Your task to perform on an android device: star an email in the gmail app Image 0: 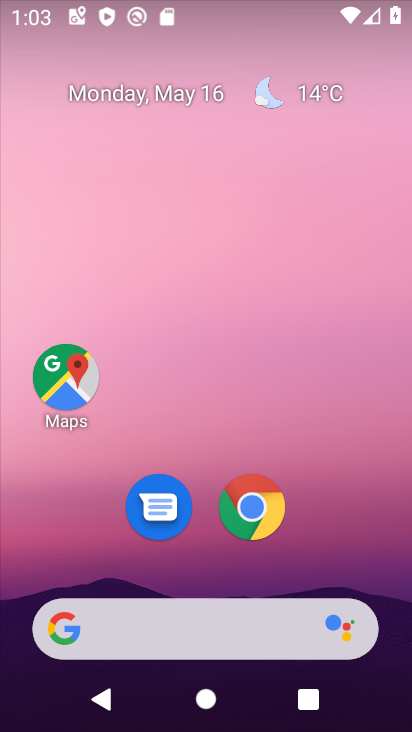
Step 0: drag from (27, 638) to (207, 218)
Your task to perform on an android device: star an email in the gmail app Image 1: 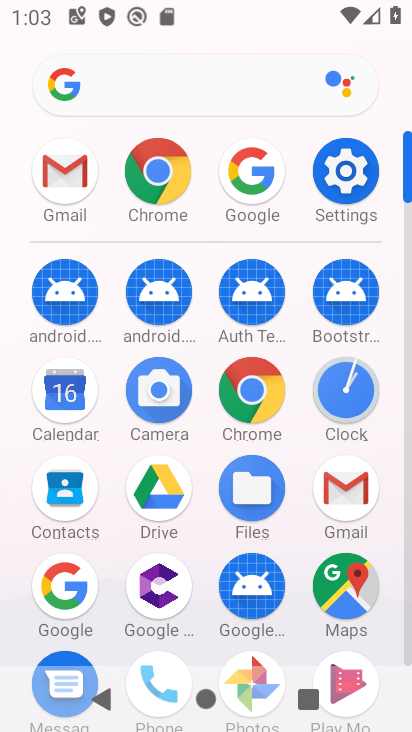
Step 1: click (338, 490)
Your task to perform on an android device: star an email in the gmail app Image 2: 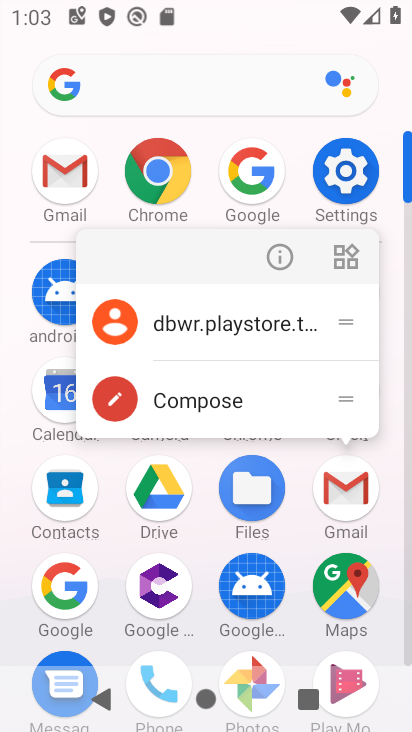
Step 2: click (345, 484)
Your task to perform on an android device: star an email in the gmail app Image 3: 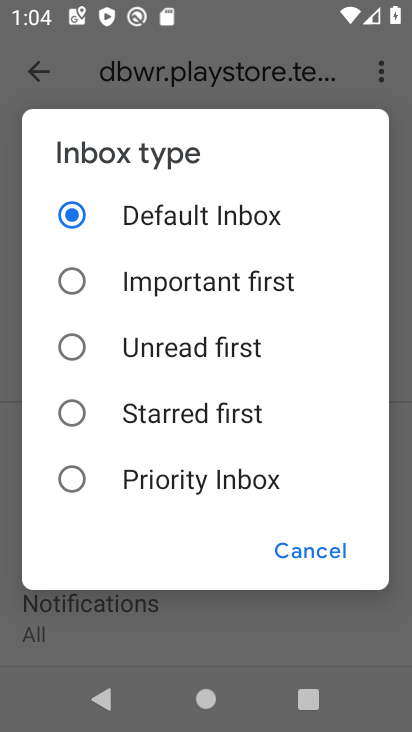
Step 3: task complete